Your task to perform on an android device: Open calendar and show me the third week of next month Image 0: 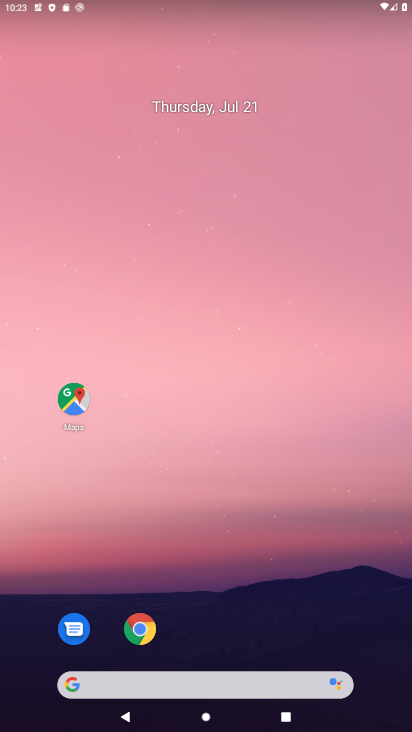
Step 0: click (195, 120)
Your task to perform on an android device: Open calendar and show me the third week of next month Image 1: 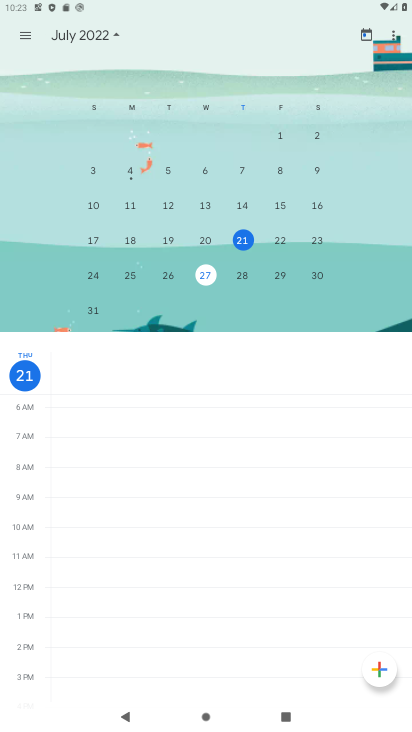
Step 1: drag from (373, 290) to (51, 227)
Your task to perform on an android device: Open calendar and show me the third week of next month Image 2: 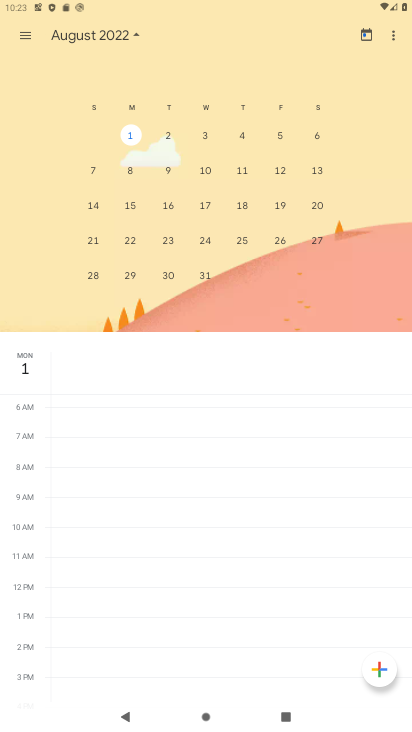
Step 2: click (129, 205)
Your task to perform on an android device: Open calendar and show me the third week of next month Image 3: 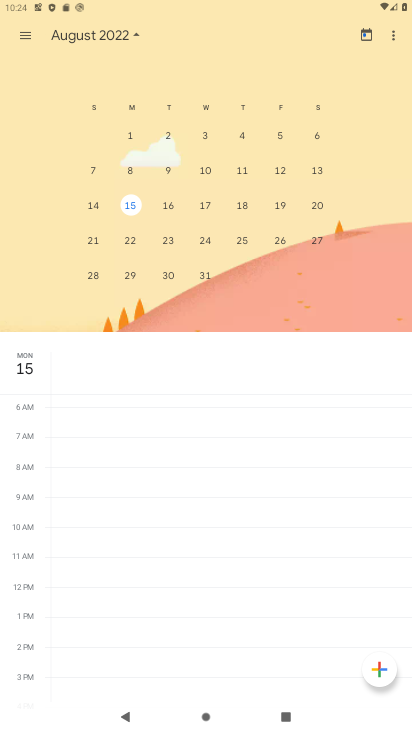
Step 3: task complete